Your task to perform on an android device: Go to accessibility settings Image 0: 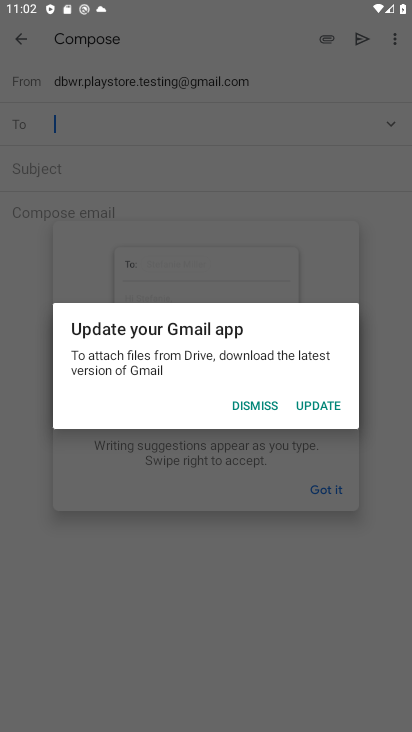
Step 0: press back button
Your task to perform on an android device: Go to accessibility settings Image 1: 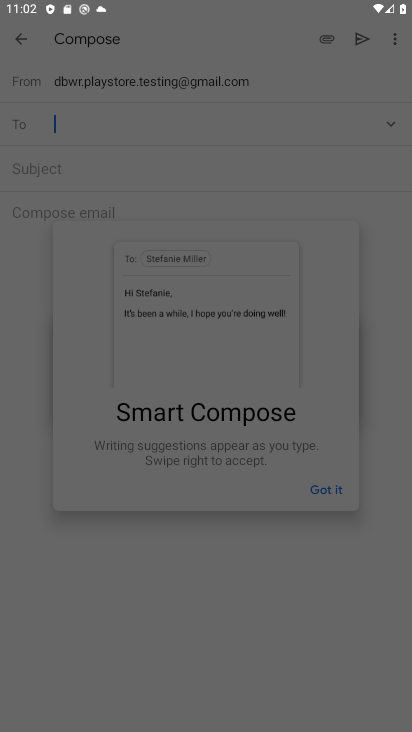
Step 1: press home button
Your task to perform on an android device: Go to accessibility settings Image 2: 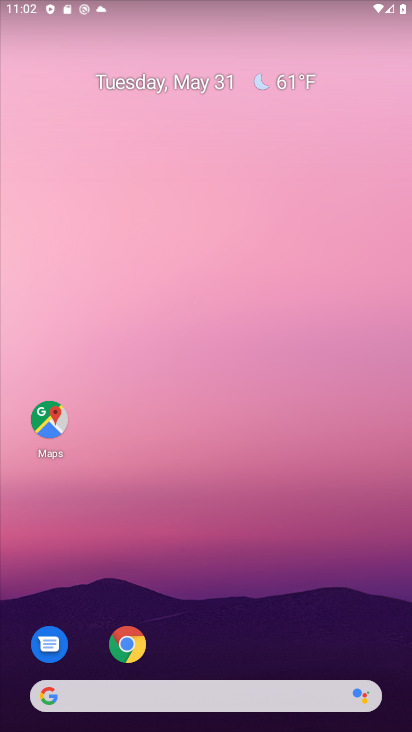
Step 2: drag from (238, 546) to (251, 28)
Your task to perform on an android device: Go to accessibility settings Image 3: 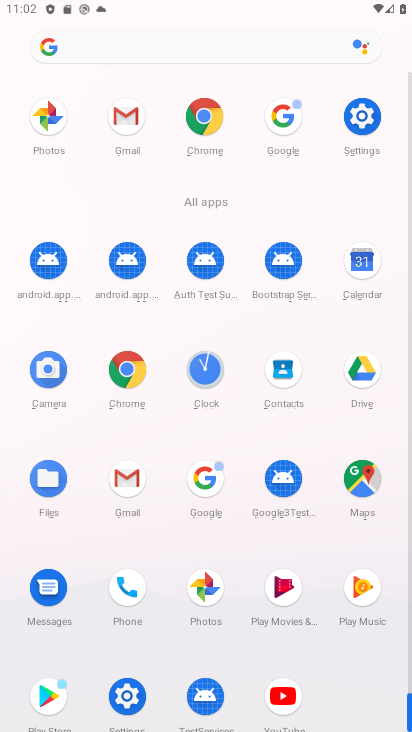
Step 3: click (365, 114)
Your task to perform on an android device: Go to accessibility settings Image 4: 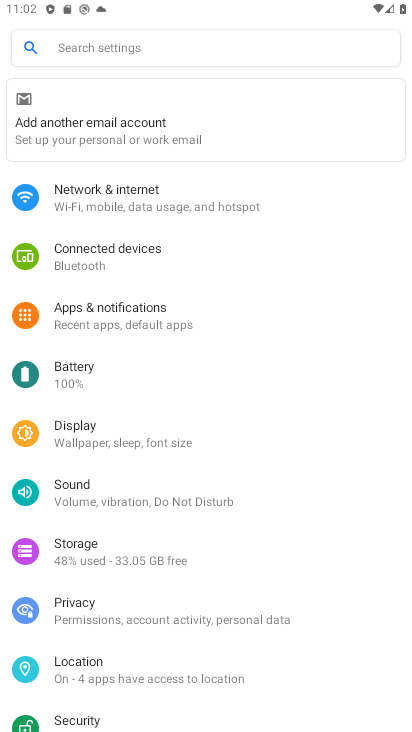
Step 4: drag from (146, 660) to (205, 158)
Your task to perform on an android device: Go to accessibility settings Image 5: 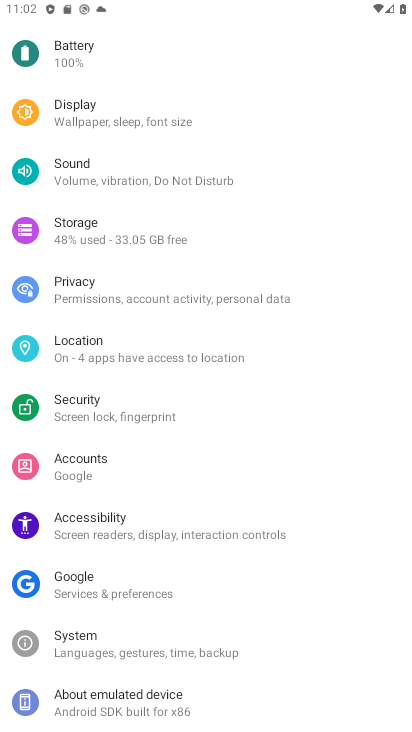
Step 5: click (98, 527)
Your task to perform on an android device: Go to accessibility settings Image 6: 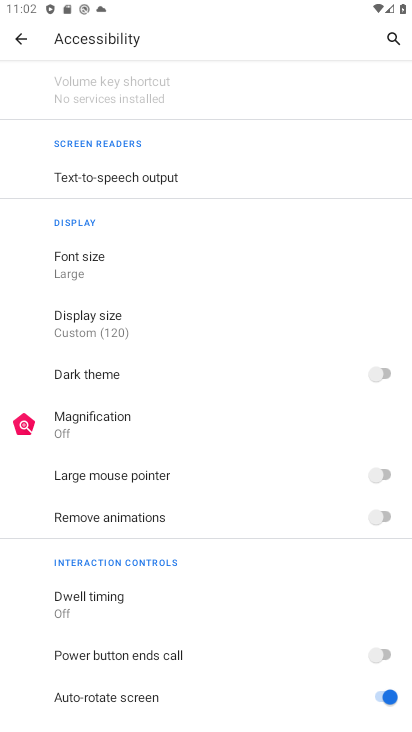
Step 6: task complete